Your task to perform on an android device: View the shopping cart on bestbuy.com. Search for bose quietcomfort 35 on bestbuy.com, select the first entry, add it to the cart, then select checkout. Image 0: 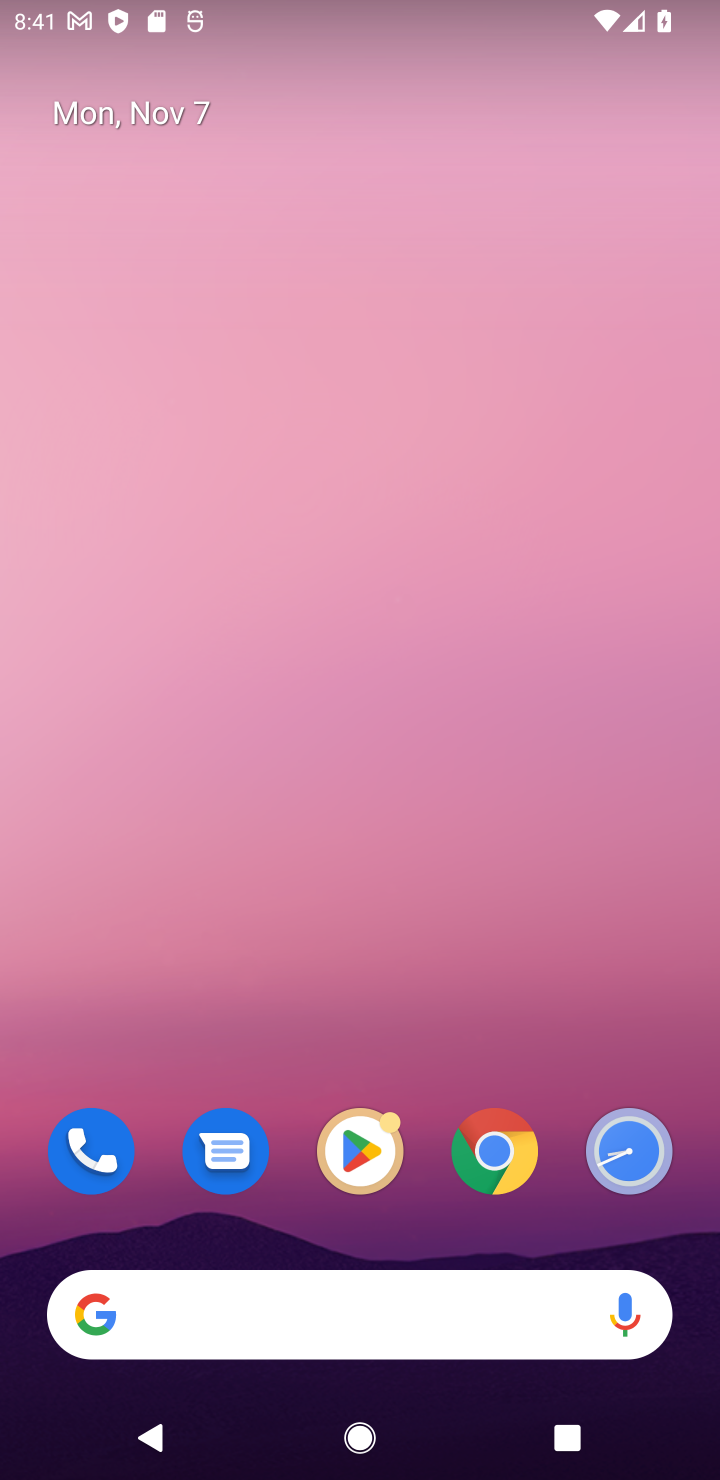
Step 0: click (490, 1156)
Your task to perform on an android device: View the shopping cart on bestbuy.com. Search for bose quietcomfort 35 on bestbuy.com, select the first entry, add it to the cart, then select checkout. Image 1: 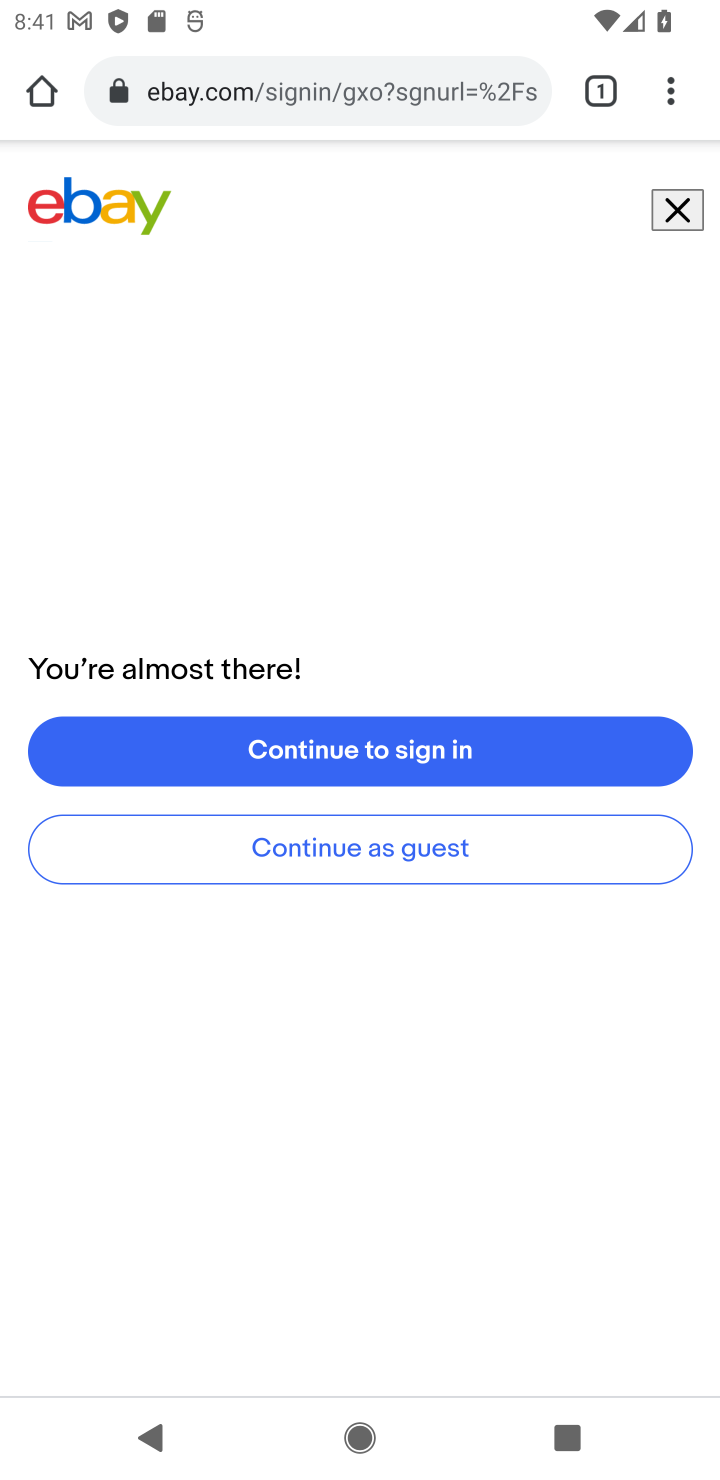
Step 1: click (412, 71)
Your task to perform on an android device: View the shopping cart on bestbuy.com. Search for bose quietcomfort 35 on bestbuy.com, select the first entry, add it to the cart, then select checkout. Image 2: 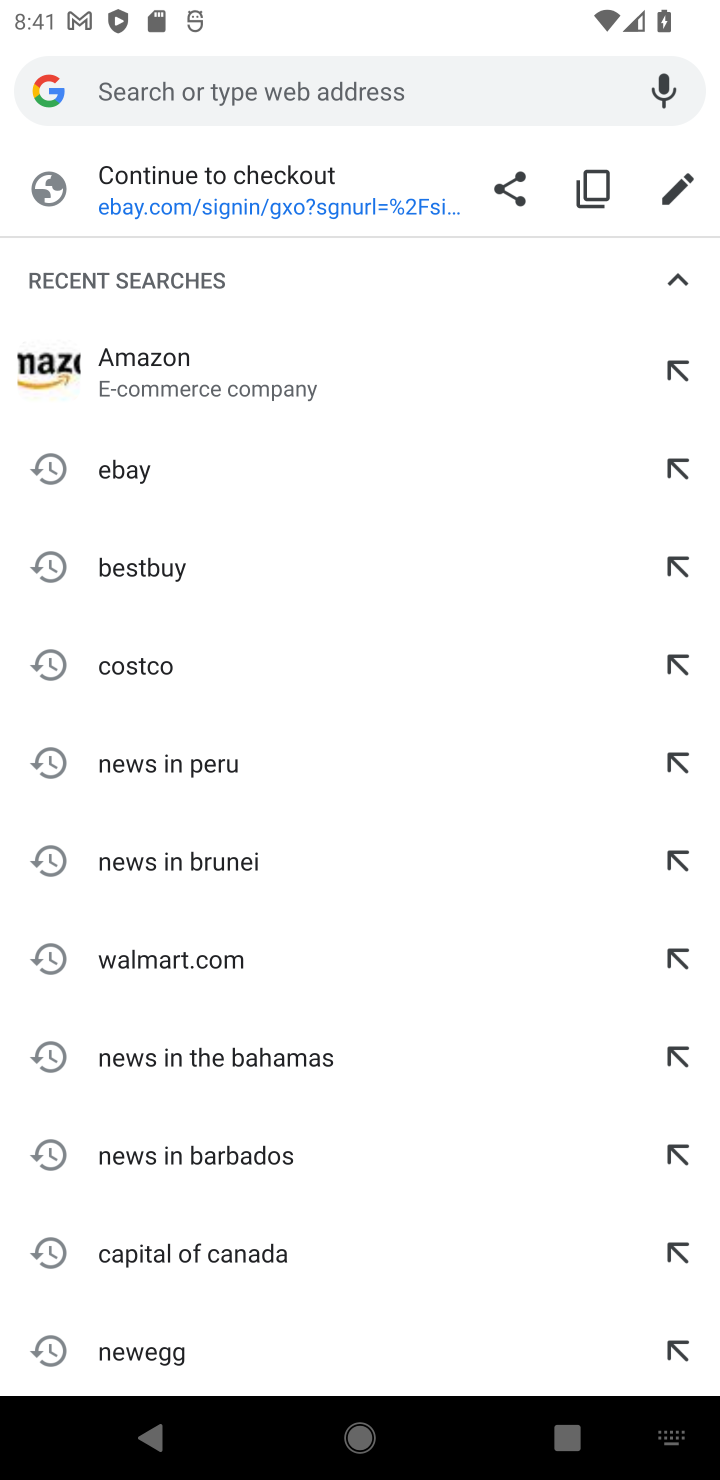
Step 2: type "bestbuy"
Your task to perform on an android device: View the shopping cart on bestbuy.com. Search for bose quietcomfort 35 on bestbuy.com, select the first entry, add it to the cart, then select checkout. Image 3: 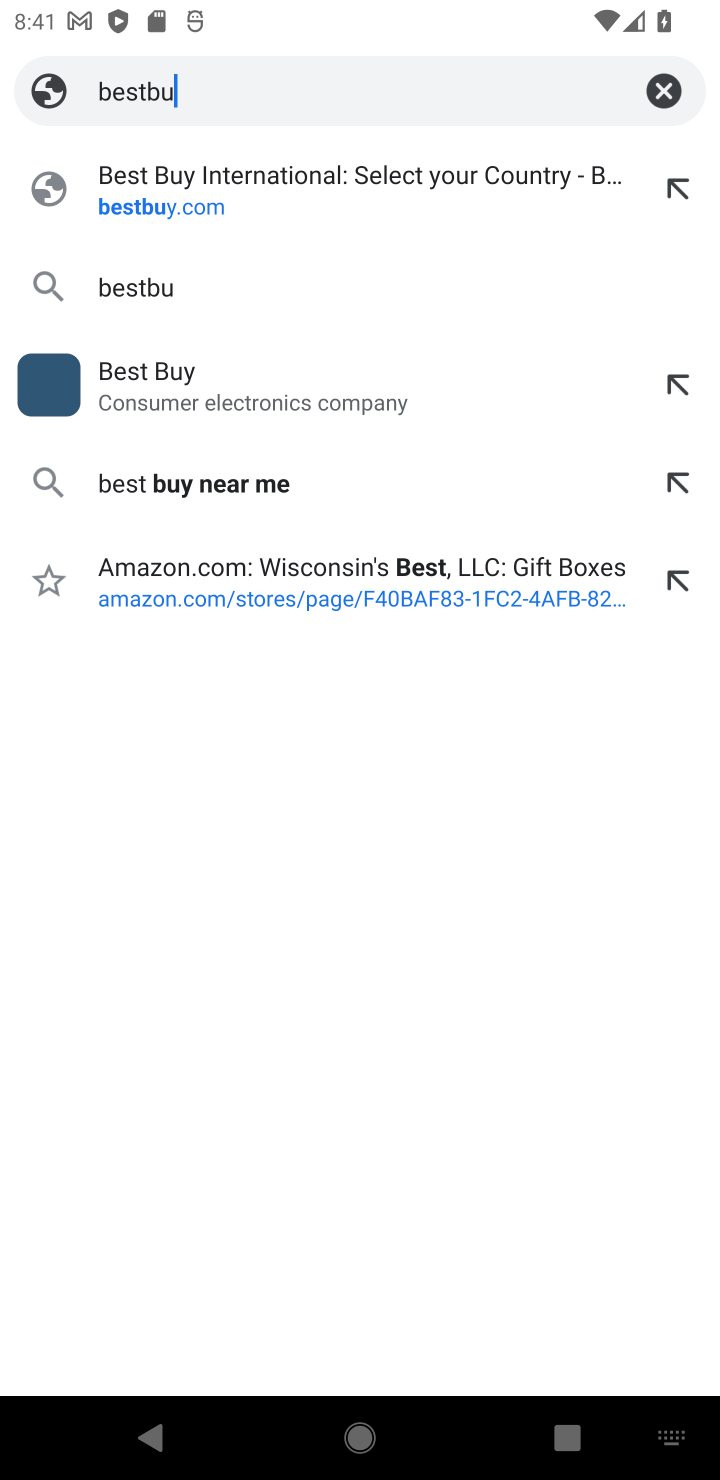
Step 3: press enter
Your task to perform on an android device: View the shopping cart on bestbuy.com. Search for bose quietcomfort 35 on bestbuy.com, select the first entry, add it to the cart, then select checkout. Image 4: 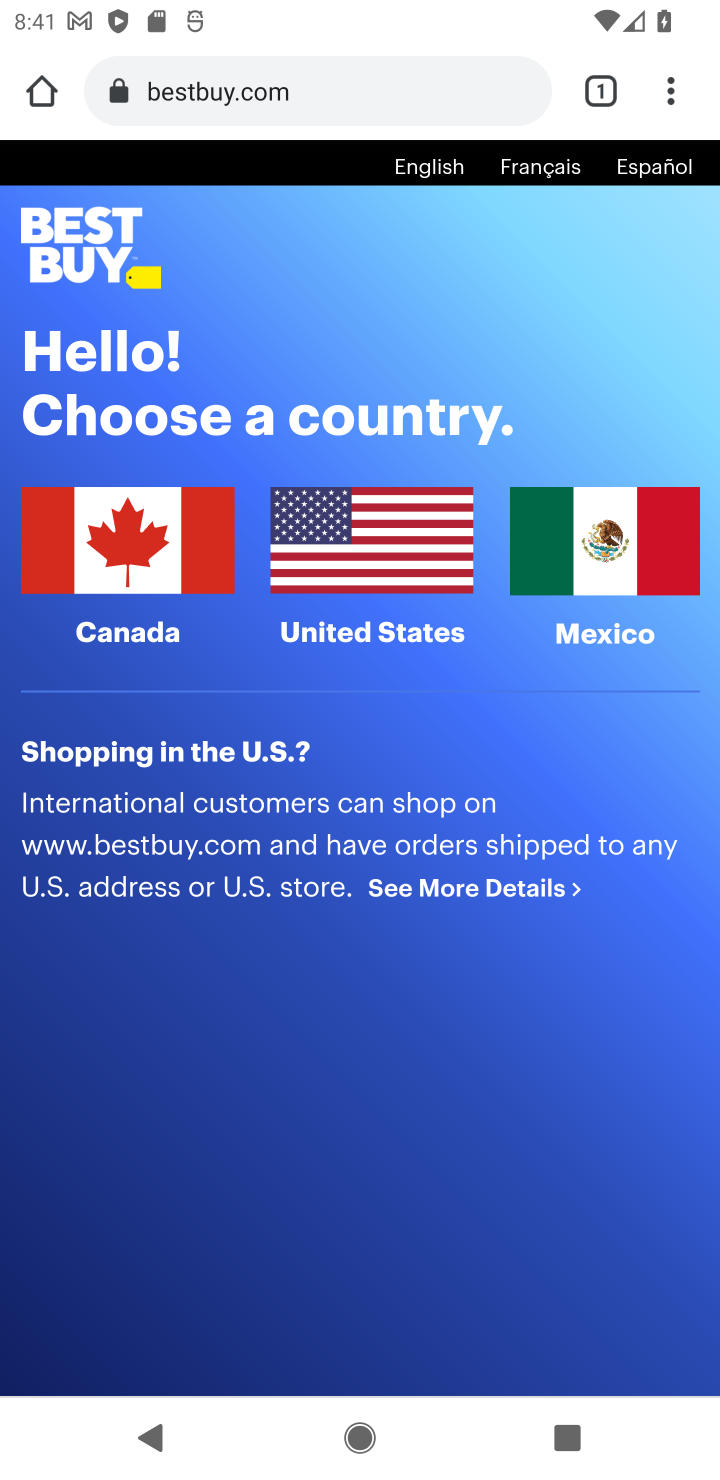
Step 4: click (159, 629)
Your task to perform on an android device: View the shopping cart on bestbuy.com. Search for bose quietcomfort 35 on bestbuy.com, select the first entry, add it to the cart, then select checkout. Image 5: 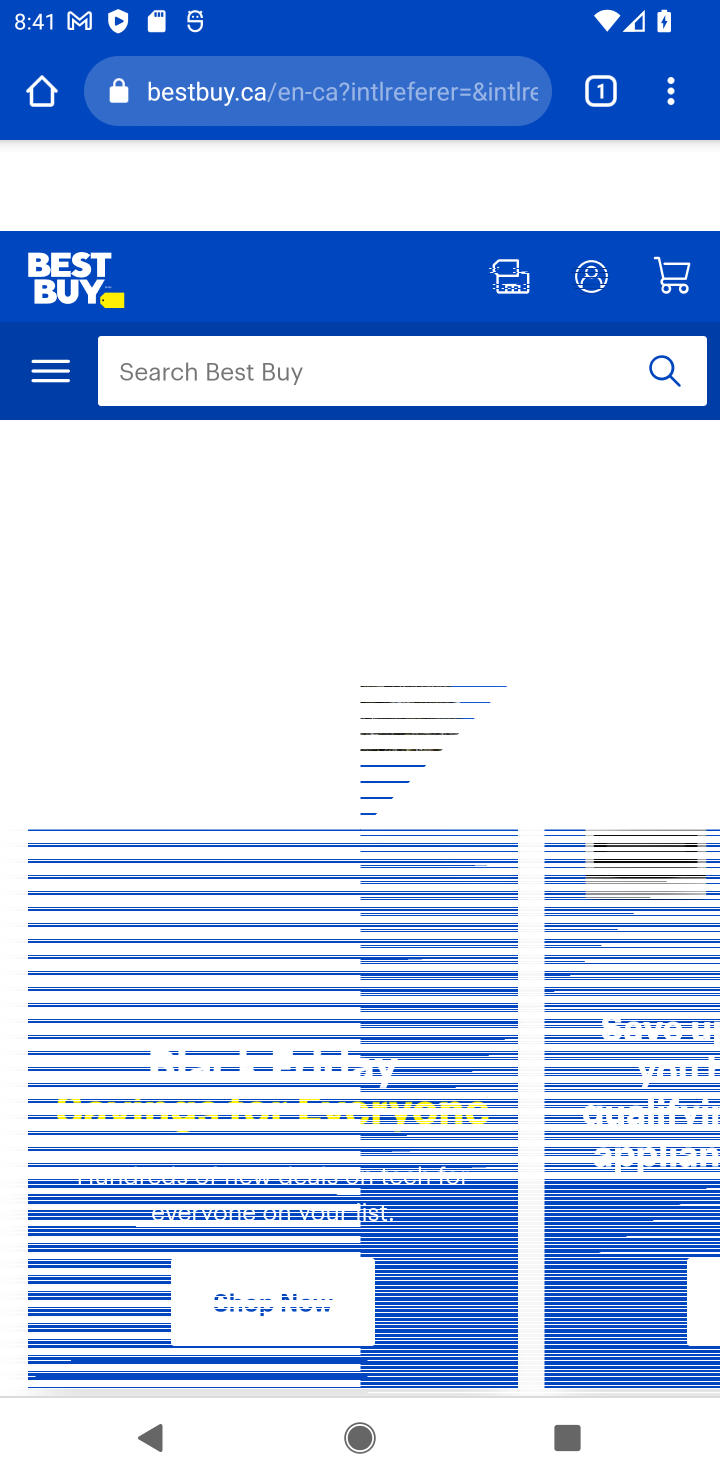
Step 5: click (257, 369)
Your task to perform on an android device: View the shopping cart on bestbuy.com. Search for bose quietcomfort 35 on bestbuy.com, select the first entry, add it to the cart, then select checkout. Image 6: 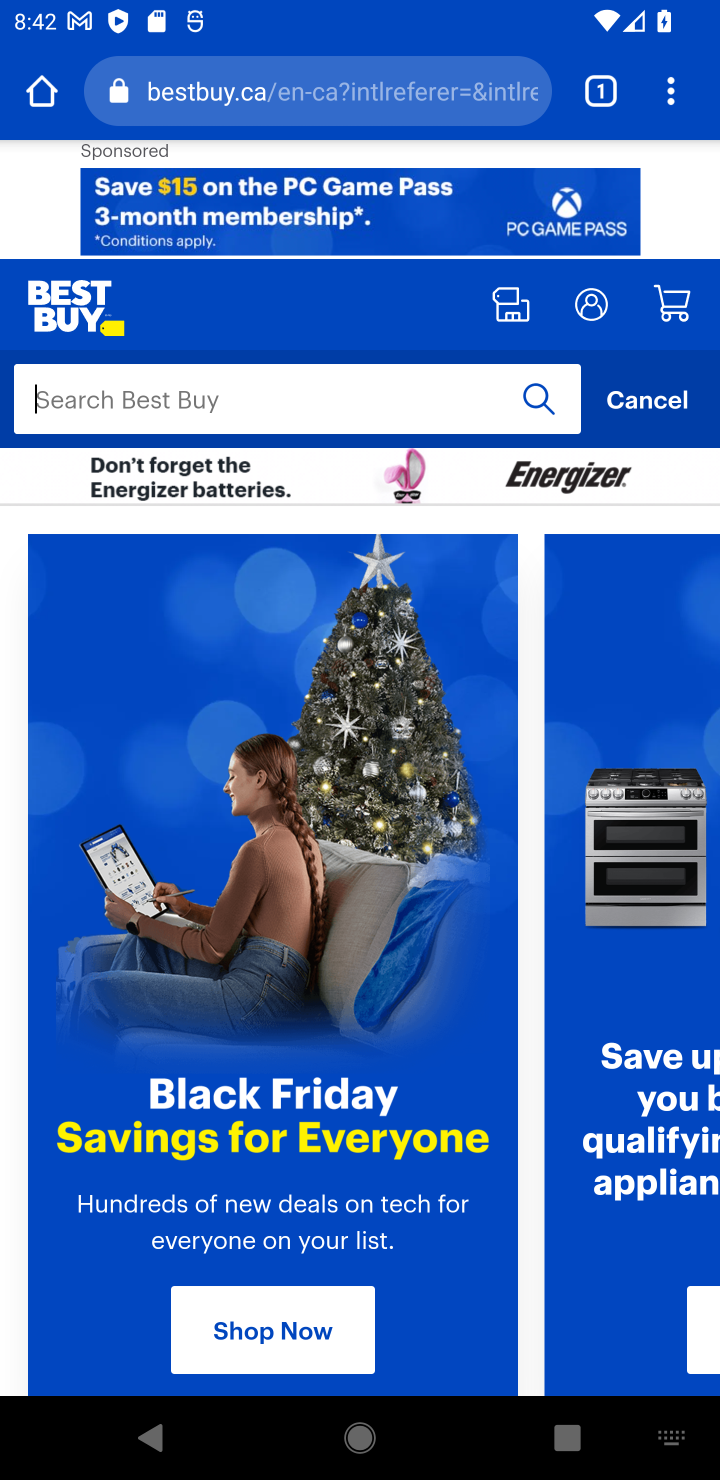
Step 6: type "bose quietcomfort 35"
Your task to perform on an android device: View the shopping cart on bestbuy.com. Search for bose quietcomfort 35 on bestbuy.com, select the first entry, add it to the cart, then select checkout. Image 7: 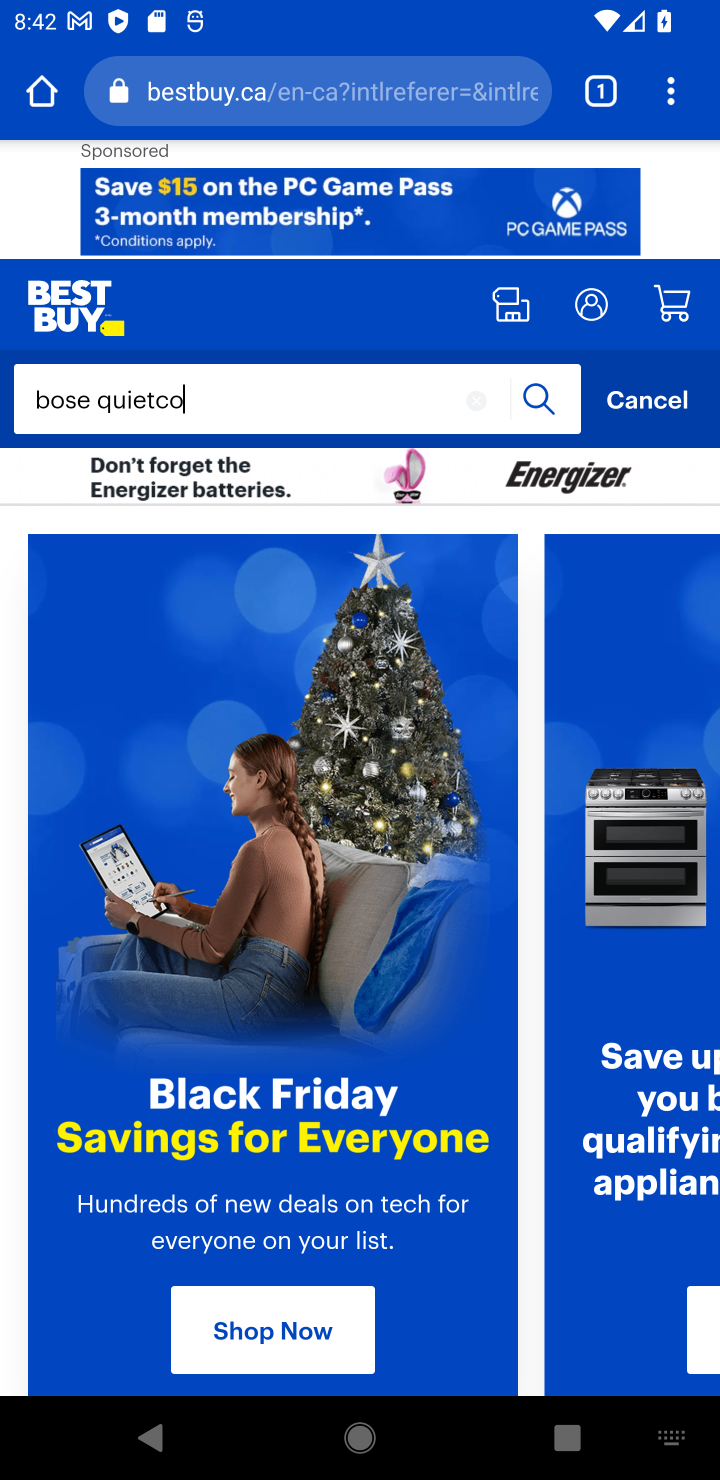
Step 7: press enter
Your task to perform on an android device: View the shopping cart on bestbuy.com. Search for bose quietcomfort 35 on bestbuy.com, select the first entry, add it to the cart, then select checkout. Image 8: 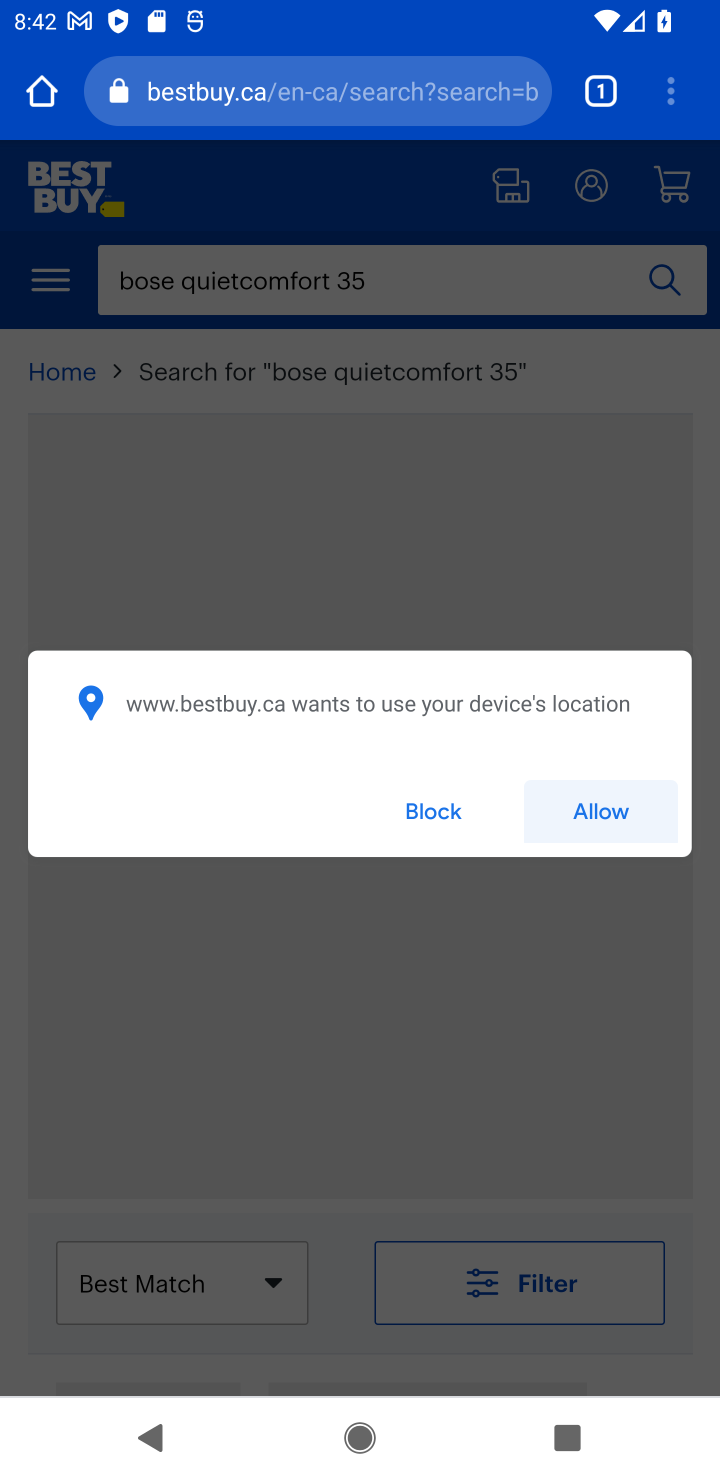
Step 8: click (457, 810)
Your task to perform on an android device: View the shopping cart on bestbuy.com. Search for bose quietcomfort 35 on bestbuy.com, select the first entry, add it to the cart, then select checkout. Image 9: 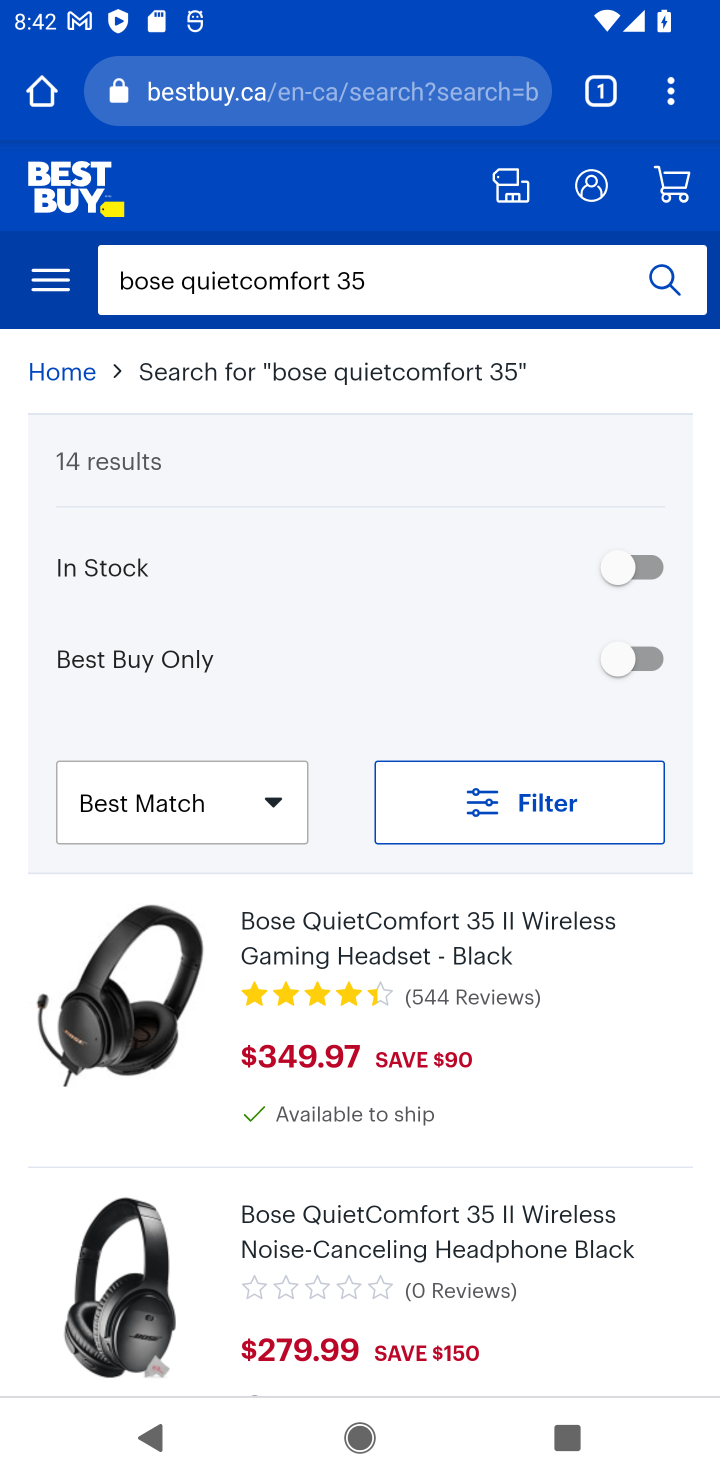
Step 9: click (386, 990)
Your task to perform on an android device: View the shopping cart on bestbuy.com. Search for bose quietcomfort 35 on bestbuy.com, select the first entry, add it to the cart, then select checkout. Image 10: 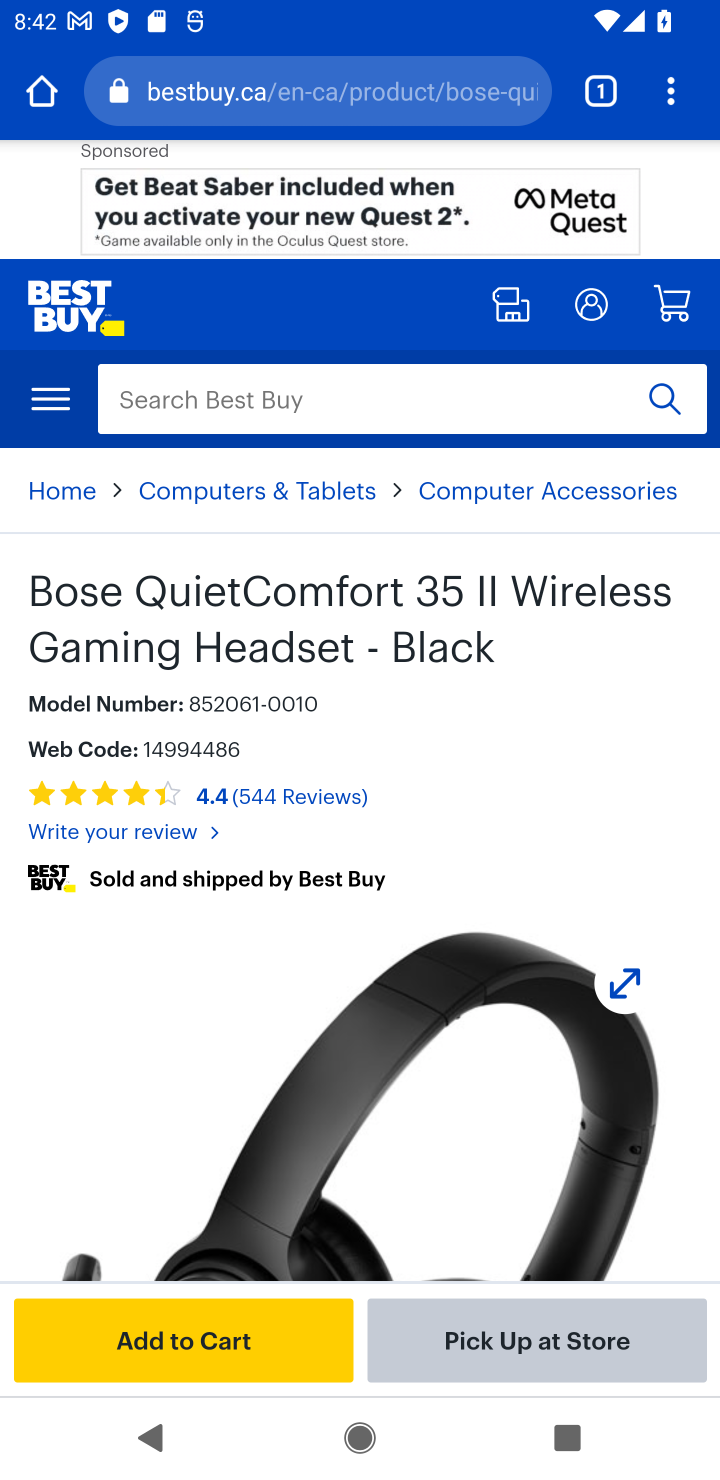
Step 10: drag from (100, 1163) to (587, 181)
Your task to perform on an android device: View the shopping cart on bestbuy.com. Search for bose quietcomfort 35 on bestbuy.com, select the first entry, add it to the cart, then select checkout. Image 11: 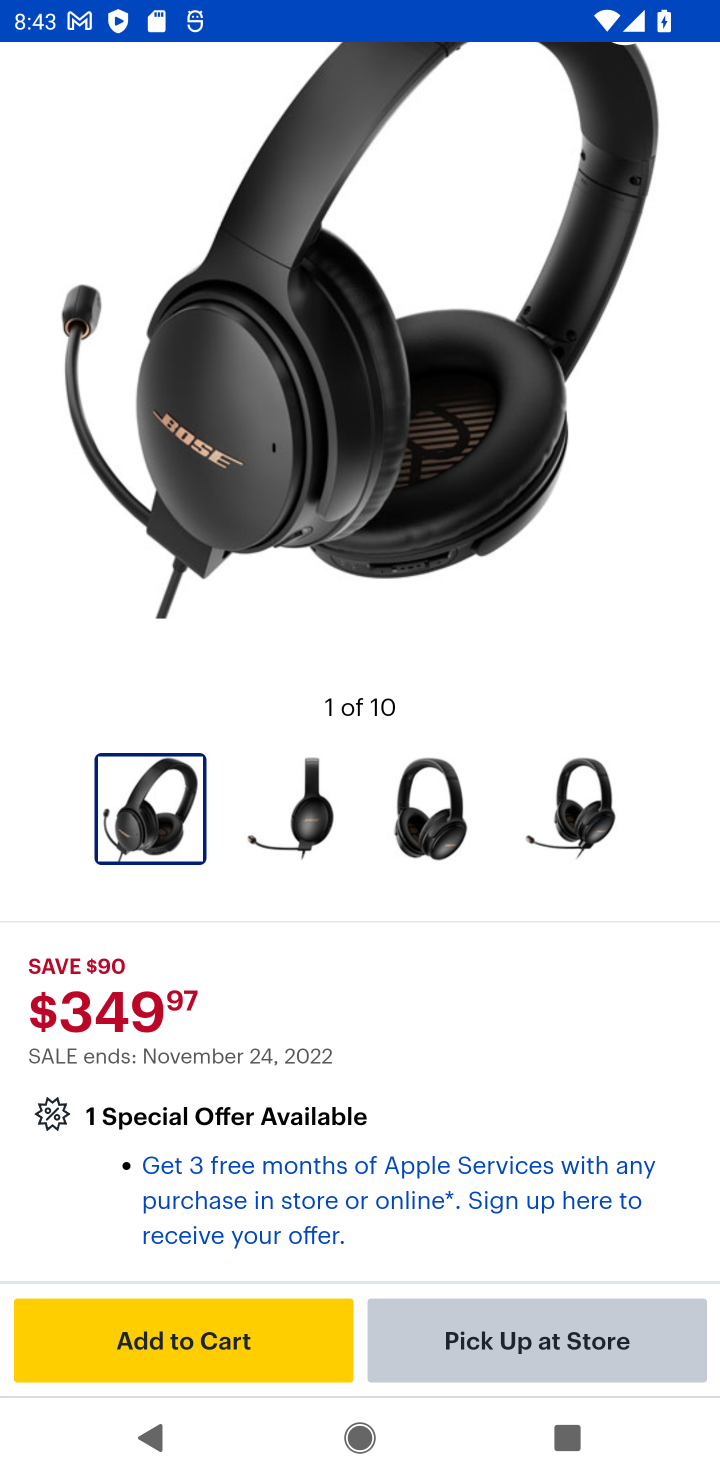
Step 11: drag from (483, 954) to (652, 310)
Your task to perform on an android device: View the shopping cart on bestbuy.com. Search for bose quietcomfort 35 on bestbuy.com, select the first entry, add it to the cart, then select checkout. Image 12: 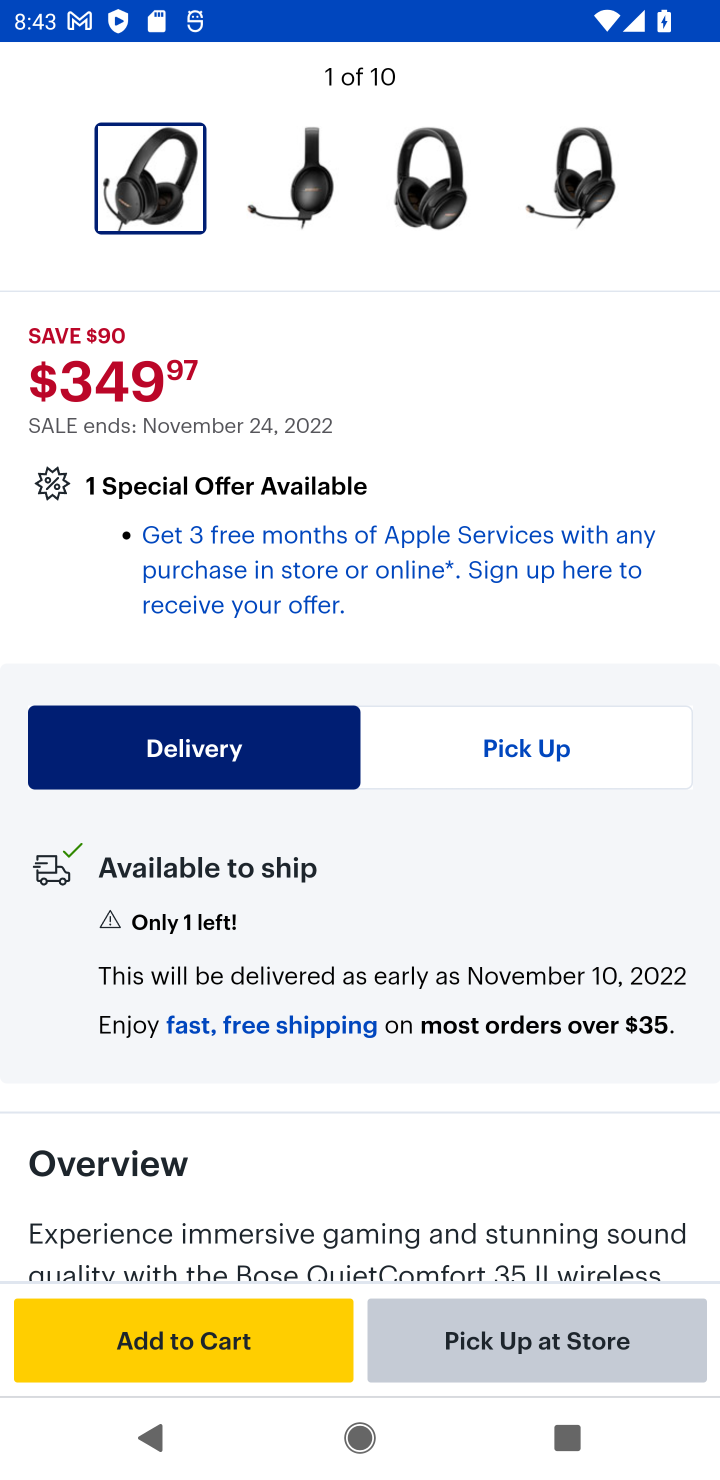
Step 12: click (227, 1347)
Your task to perform on an android device: View the shopping cart on bestbuy.com. Search for bose quietcomfort 35 on bestbuy.com, select the first entry, add it to the cart, then select checkout. Image 13: 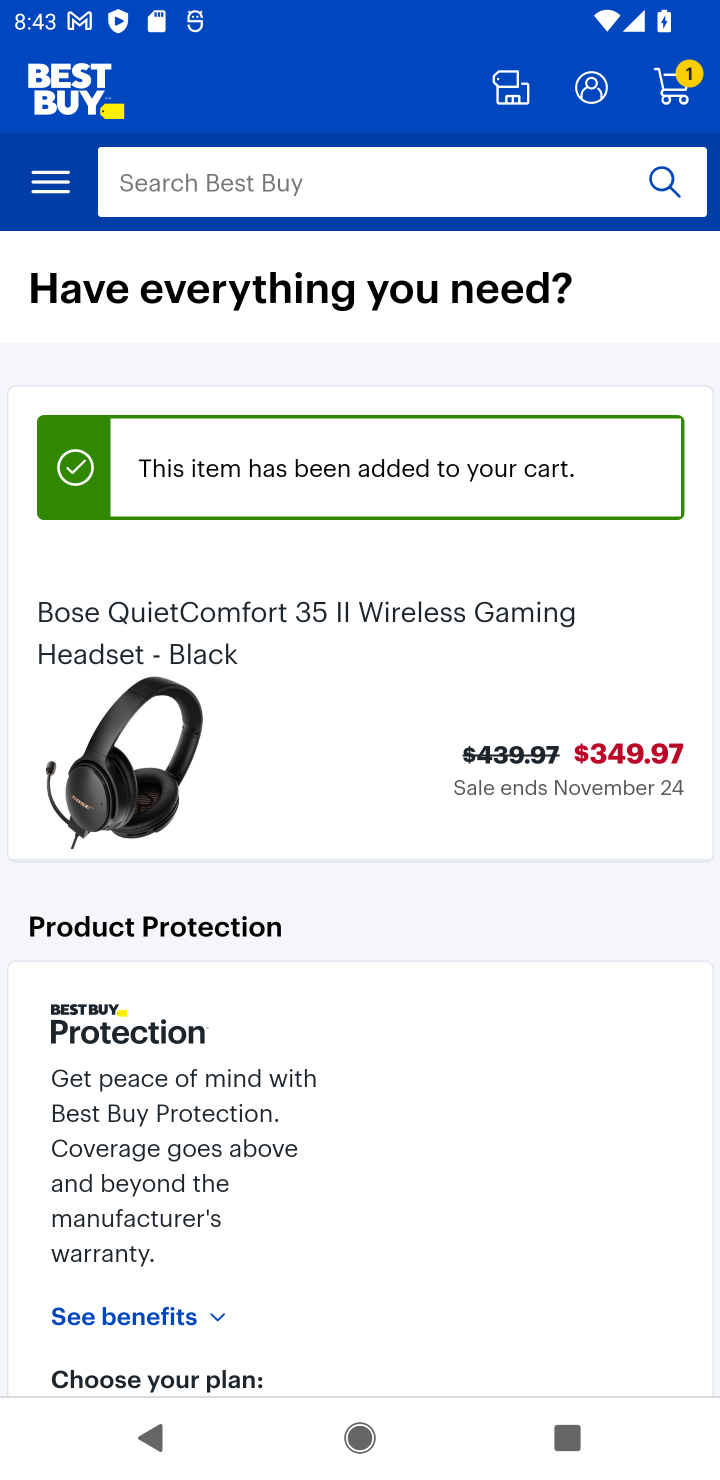
Step 13: drag from (309, 1241) to (637, 413)
Your task to perform on an android device: View the shopping cart on bestbuy.com. Search for bose quietcomfort 35 on bestbuy.com, select the first entry, add it to the cart, then select checkout. Image 14: 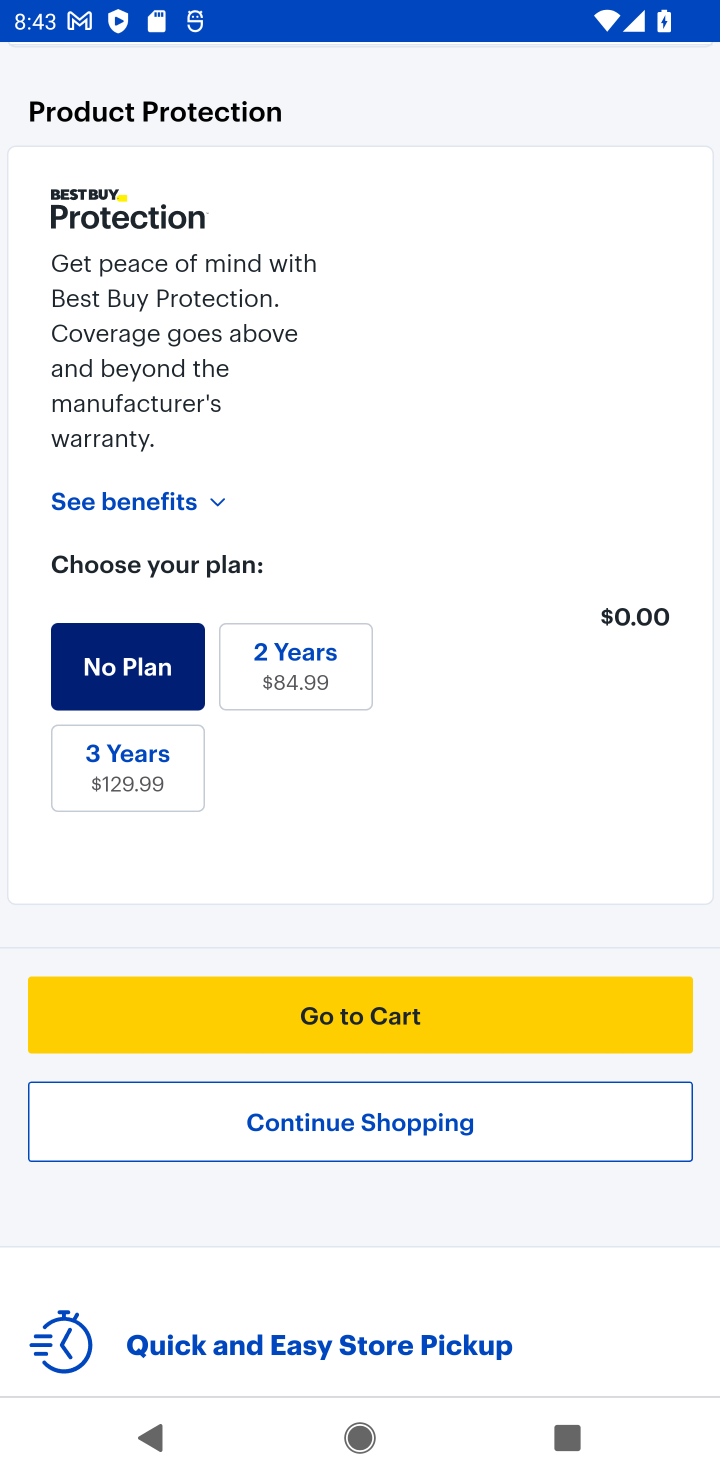
Step 14: click (385, 1019)
Your task to perform on an android device: View the shopping cart on bestbuy.com. Search for bose quietcomfort 35 on bestbuy.com, select the first entry, add it to the cart, then select checkout. Image 15: 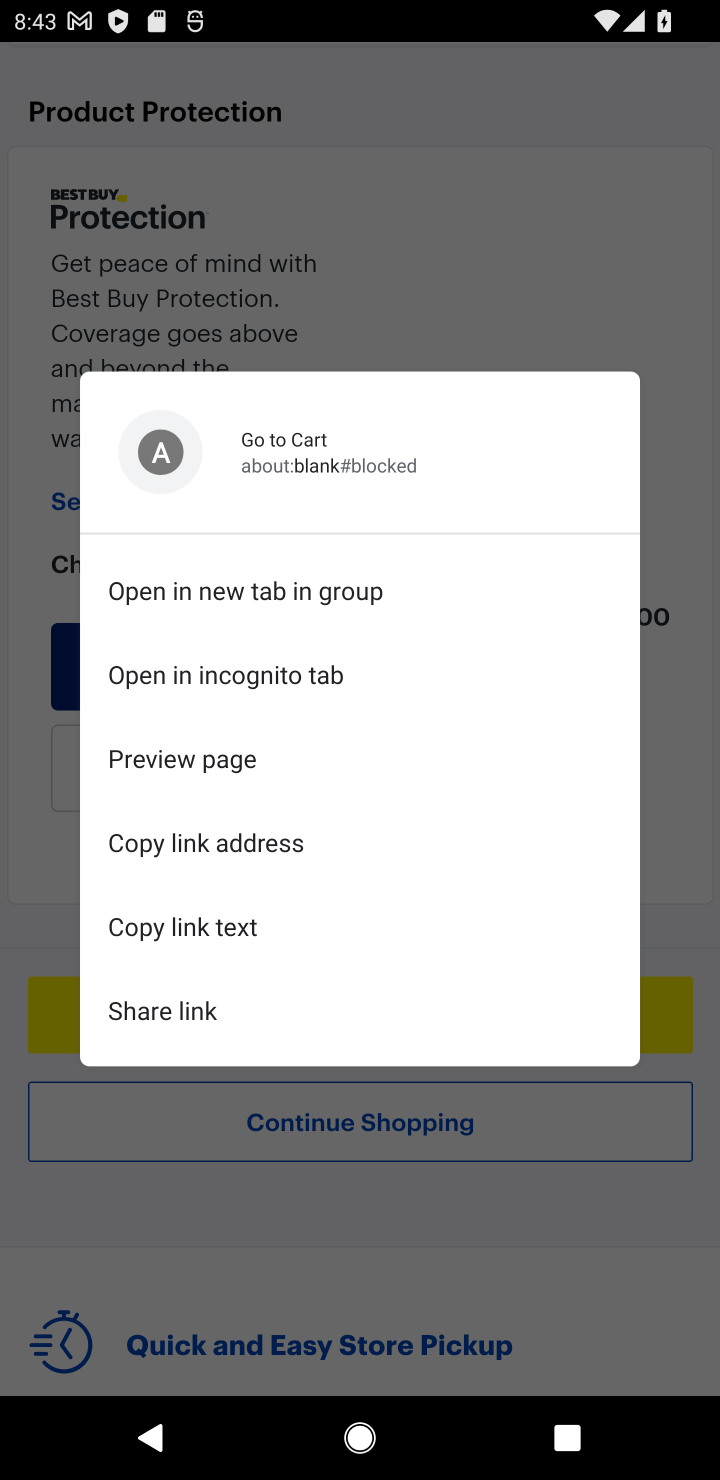
Step 15: click (677, 1029)
Your task to perform on an android device: View the shopping cart on bestbuy.com. Search for bose quietcomfort 35 on bestbuy.com, select the first entry, add it to the cart, then select checkout. Image 16: 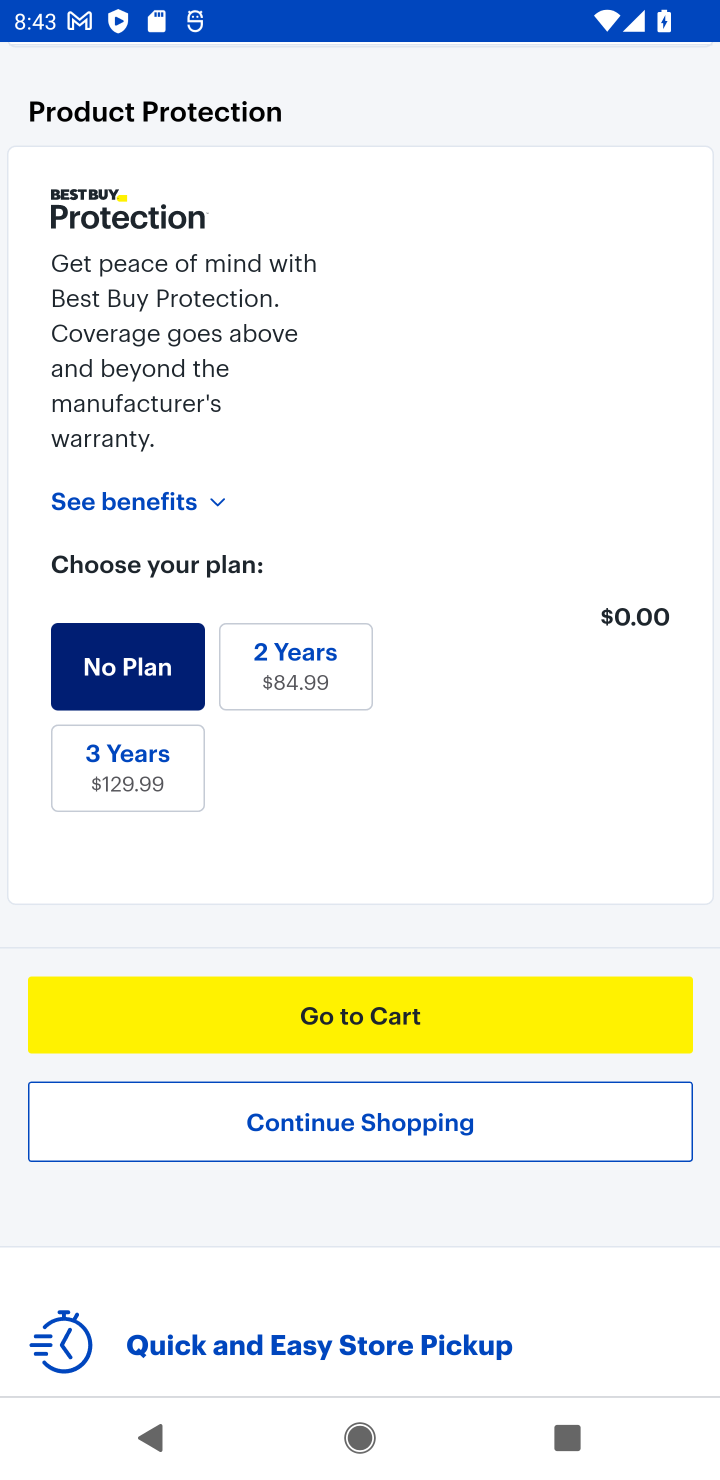
Step 16: click (354, 1006)
Your task to perform on an android device: View the shopping cart on bestbuy.com. Search for bose quietcomfort 35 on bestbuy.com, select the first entry, add it to the cart, then select checkout. Image 17: 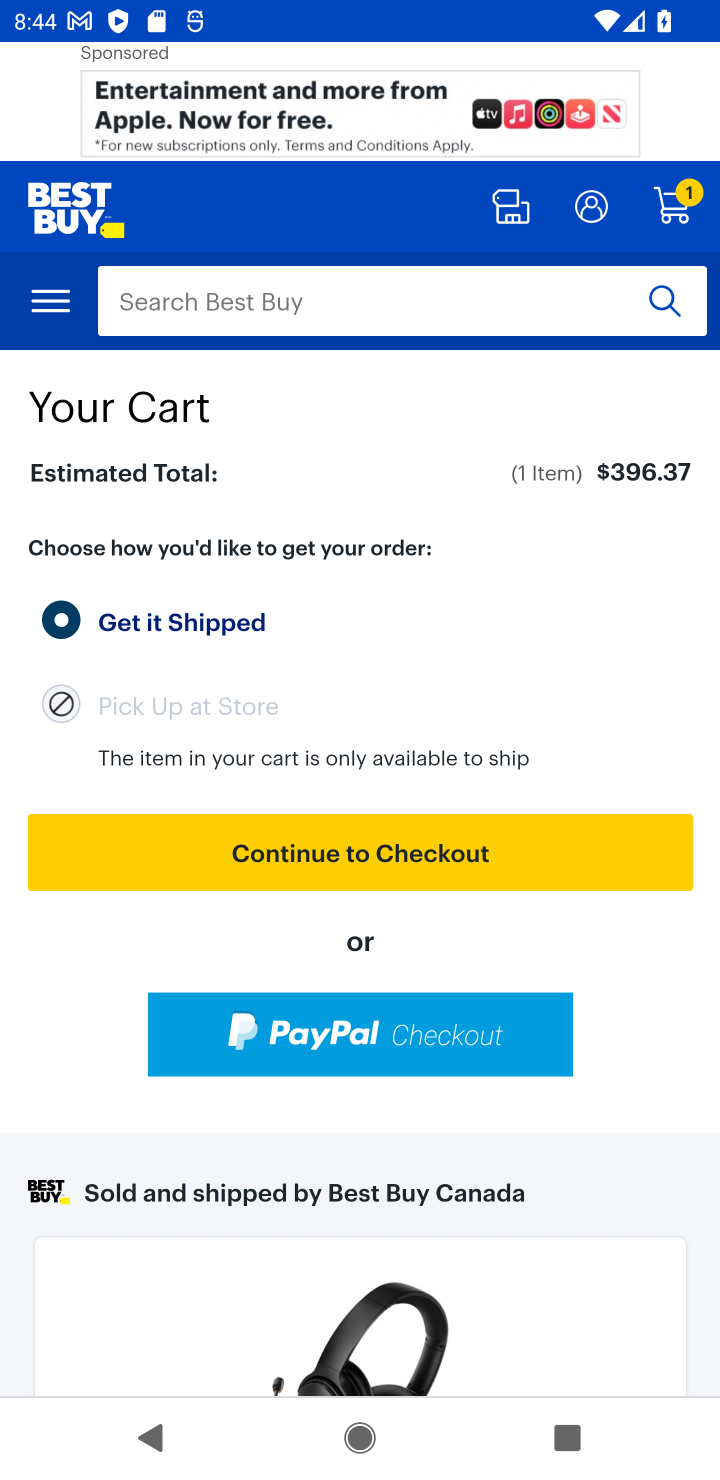
Step 17: click (434, 854)
Your task to perform on an android device: View the shopping cart on bestbuy.com. Search for bose quietcomfort 35 on bestbuy.com, select the first entry, add it to the cart, then select checkout. Image 18: 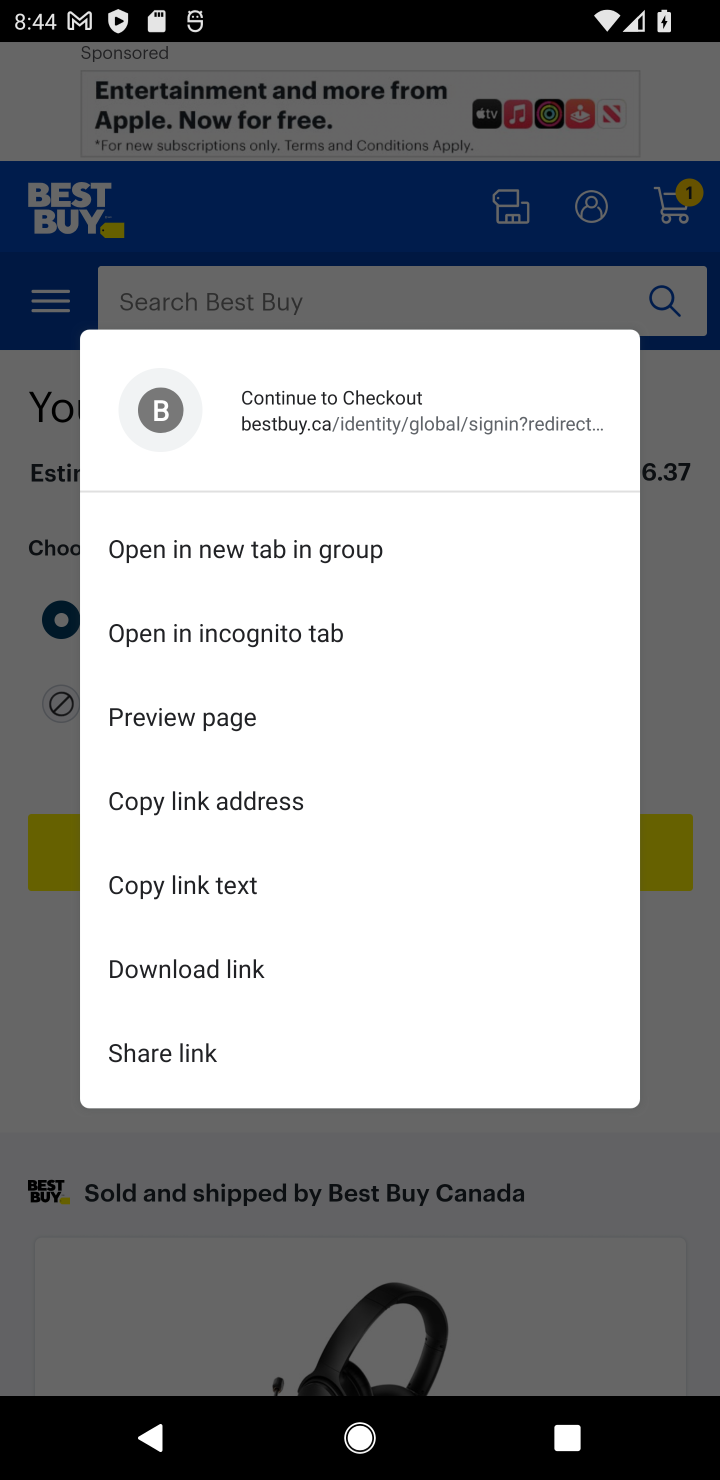
Step 18: click (676, 853)
Your task to perform on an android device: View the shopping cart on bestbuy.com. Search for bose quietcomfort 35 on bestbuy.com, select the first entry, add it to the cart, then select checkout. Image 19: 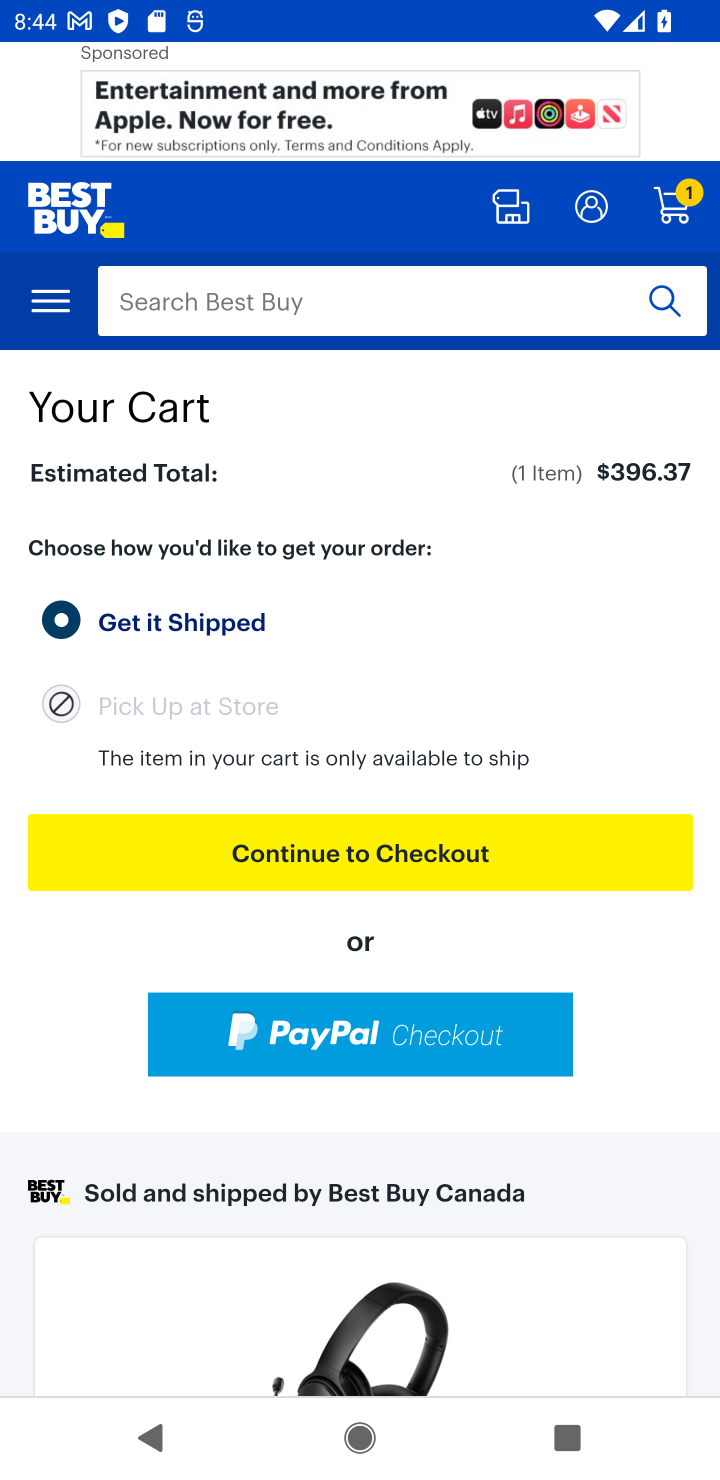
Step 19: click (351, 851)
Your task to perform on an android device: View the shopping cart on bestbuy.com. Search for bose quietcomfort 35 on bestbuy.com, select the first entry, add it to the cart, then select checkout. Image 20: 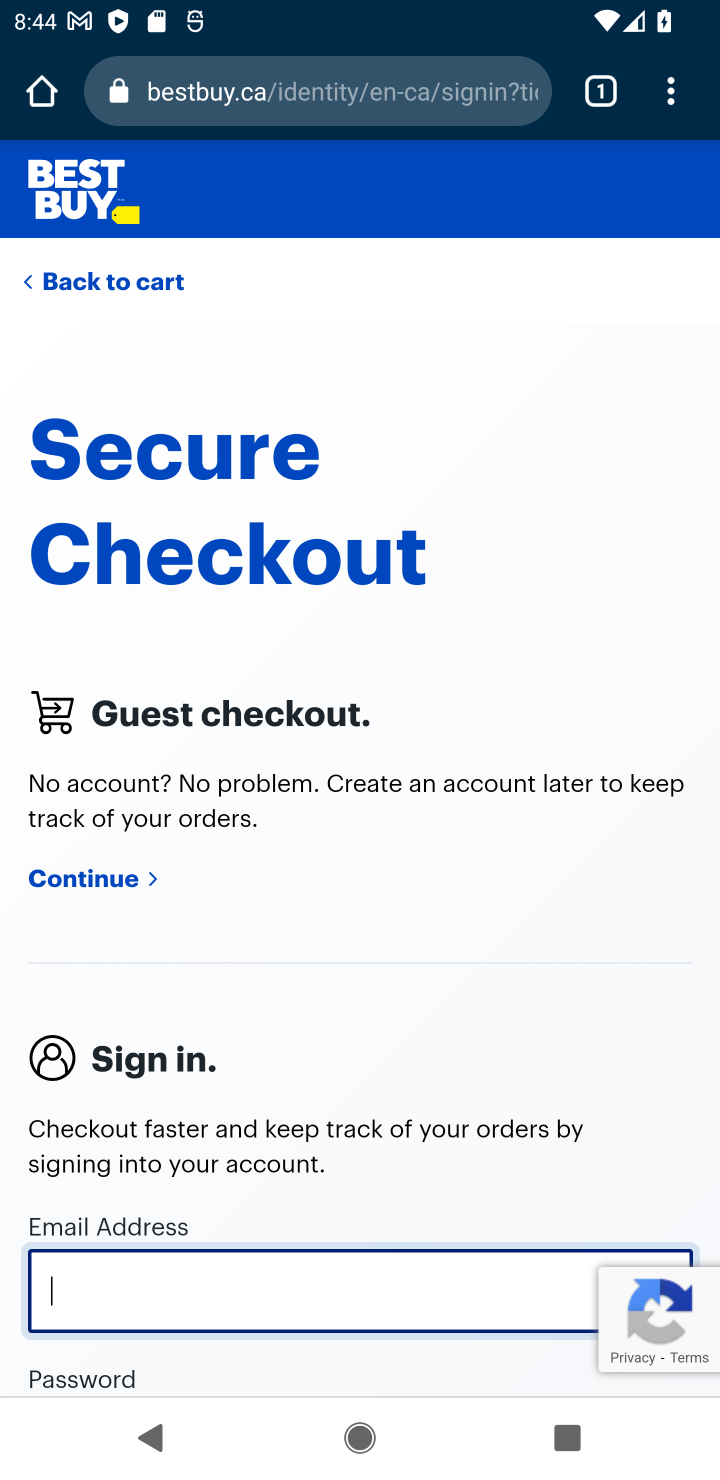
Step 20: task complete